Your task to perform on an android device: Search for the most popular coffee table on Crate & Barrel Image 0: 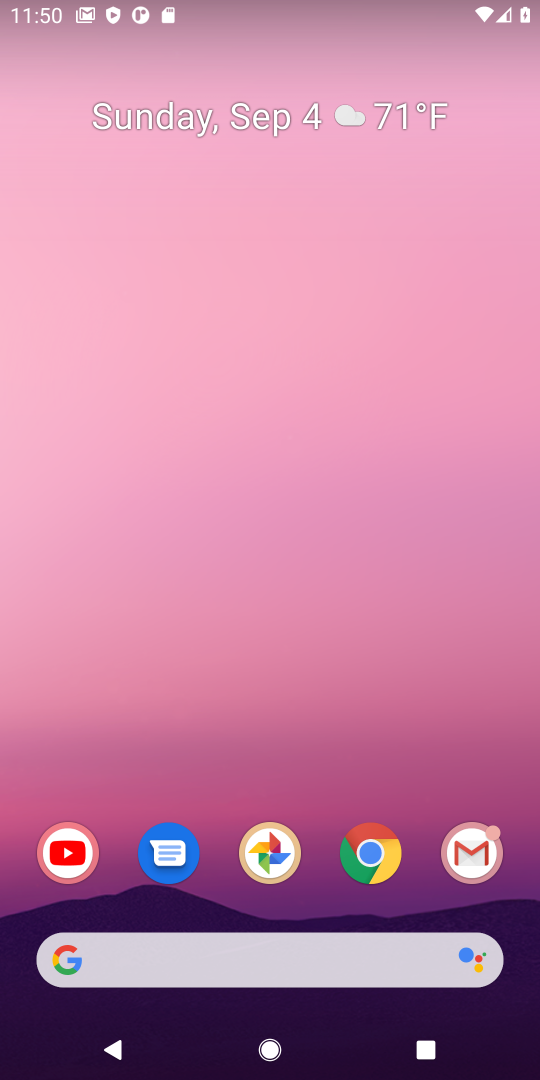
Step 0: click (377, 859)
Your task to perform on an android device: Search for the most popular coffee table on Crate & Barrel Image 1: 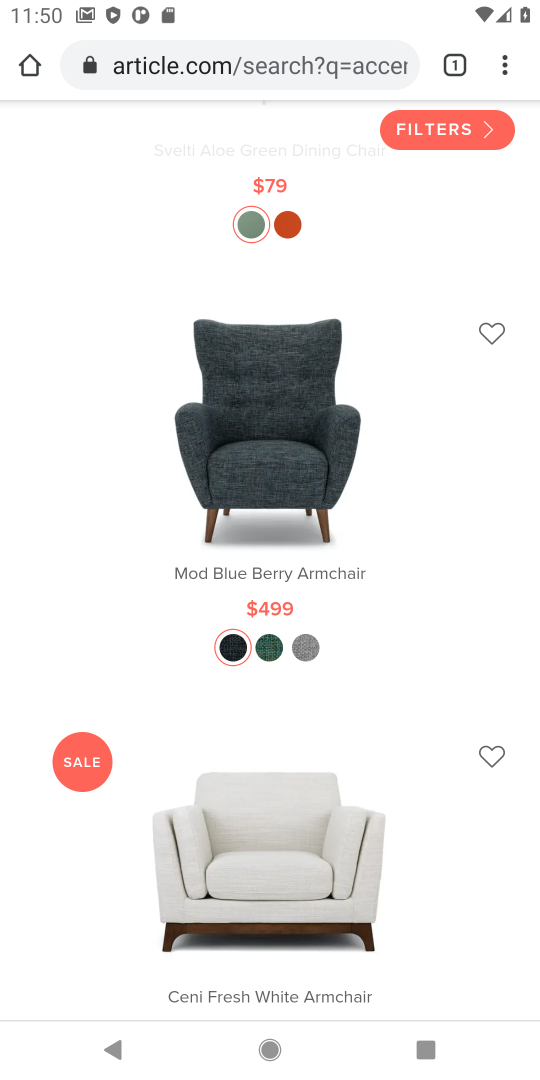
Step 1: click (282, 59)
Your task to perform on an android device: Search for the most popular coffee table on Crate & Barrel Image 2: 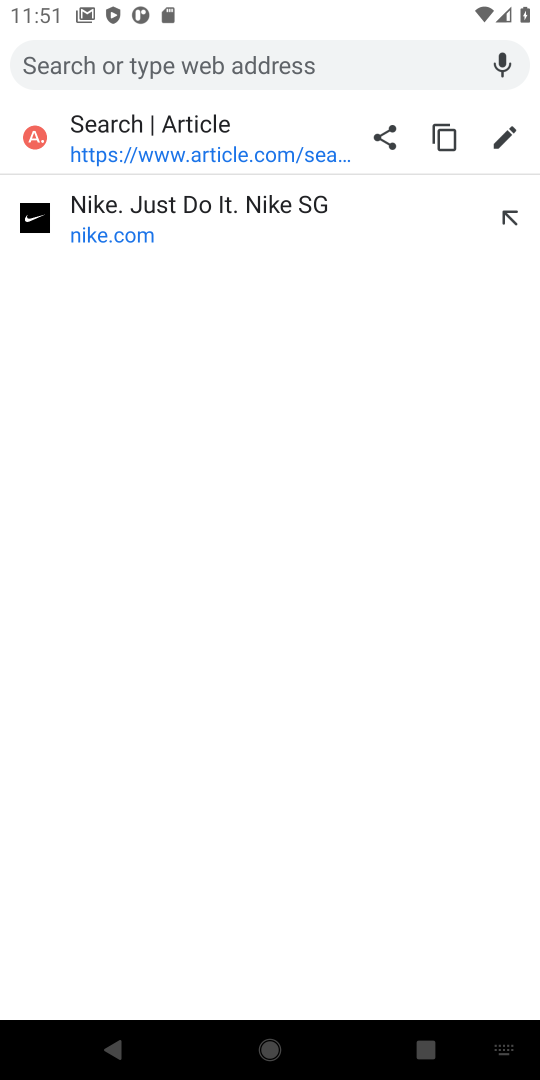
Step 2: type "Crate & Barrel"
Your task to perform on an android device: Search for the most popular coffee table on Crate & Barrel Image 3: 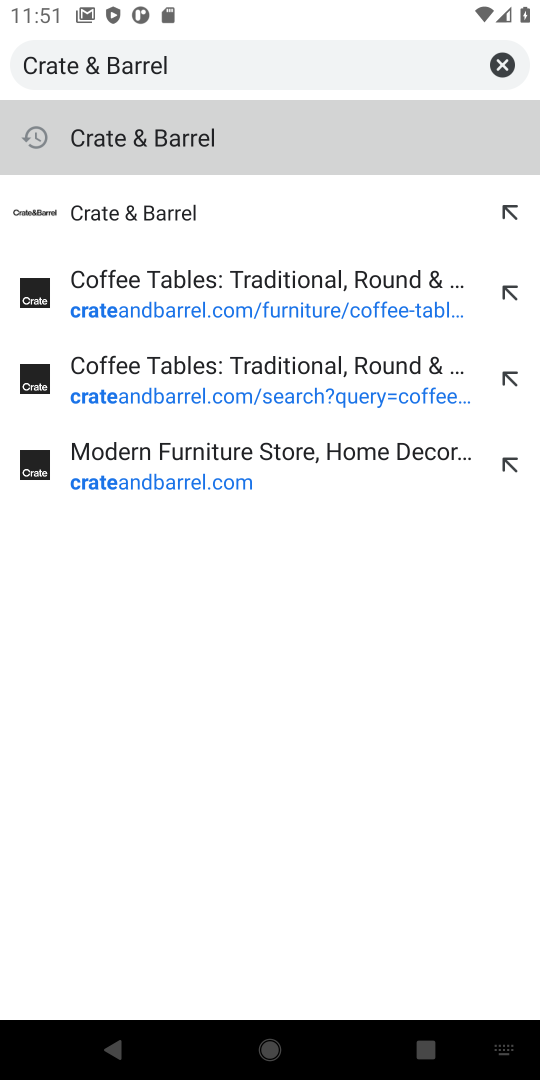
Step 3: press enter
Your task to perform on an android device: Search for the most popular coffee table on Crate & Barrel Image 4: 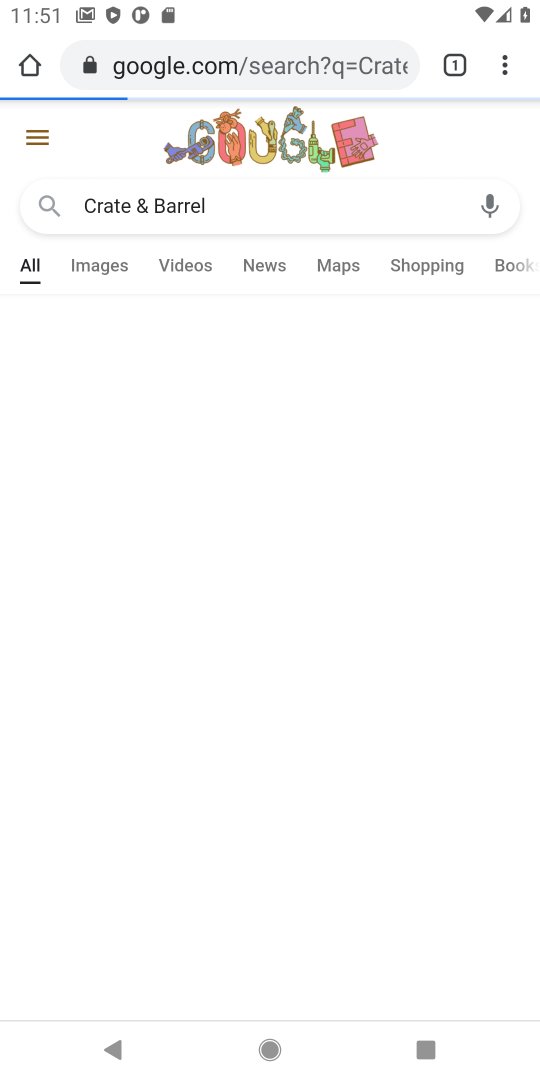
Step 4: click (140, 143)
Your task to perform on an android device: Search for the most popular coffee table on Crate & Barrel Image 5: 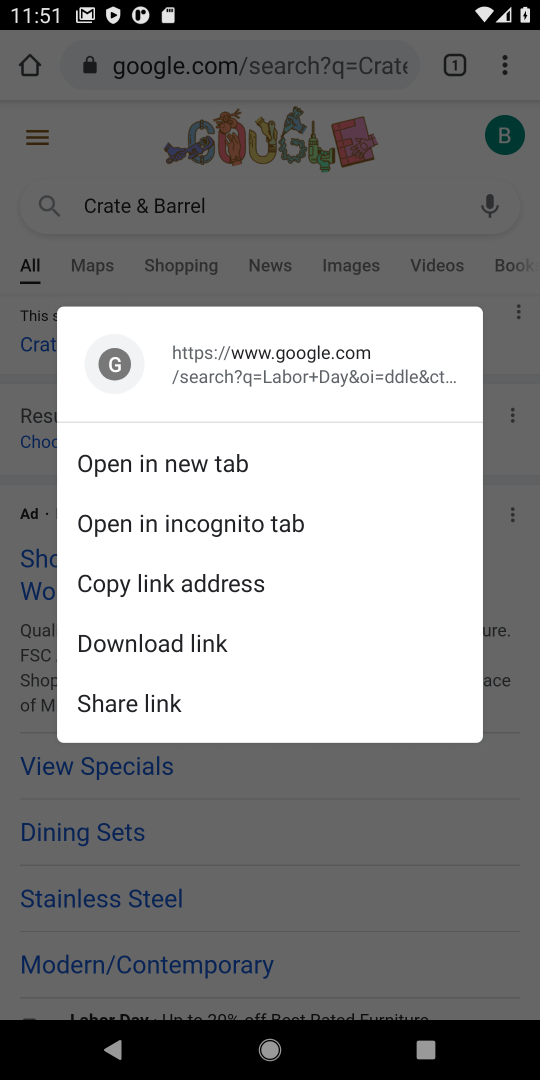
Step 5: click (435, 826)
Your task to perform on an android device: Search for the most popular coffee table on Crate & Barrel Image 6: 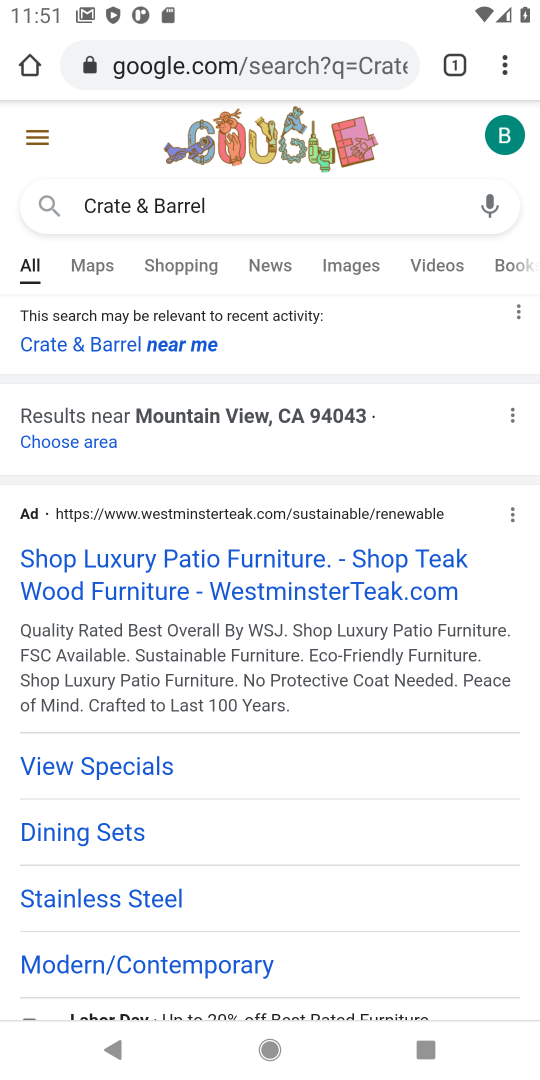
Step 6: drag from (198, 816) to (431, 111)
Your task to perform on an android device: Search for the most popular coffee table on Crate & Barrel Image 7: 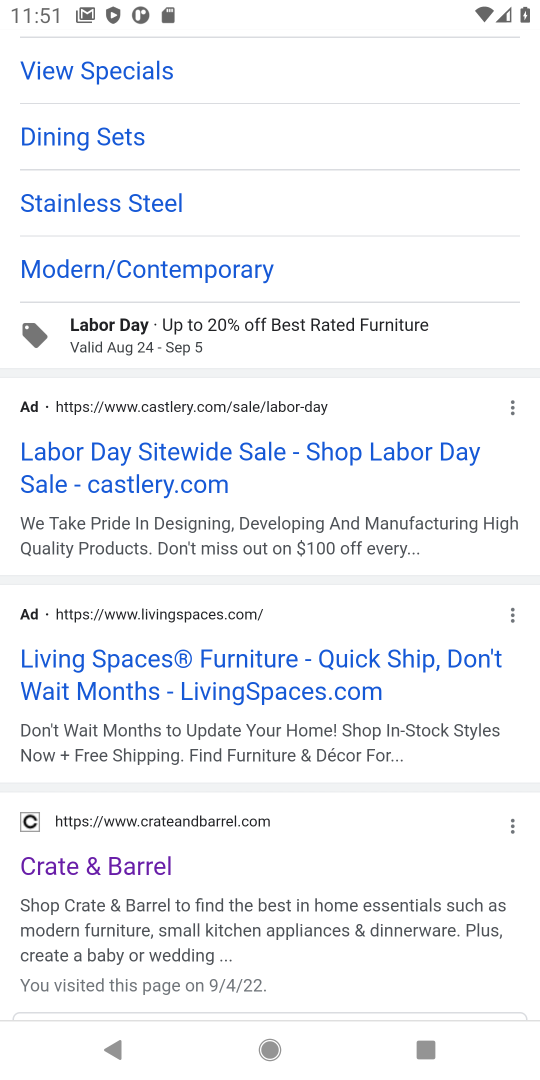
Step 7: click (87, 861)
Your task to perform on an android device: Search for the most popular coffee table on Crate & Barrel Image 8: 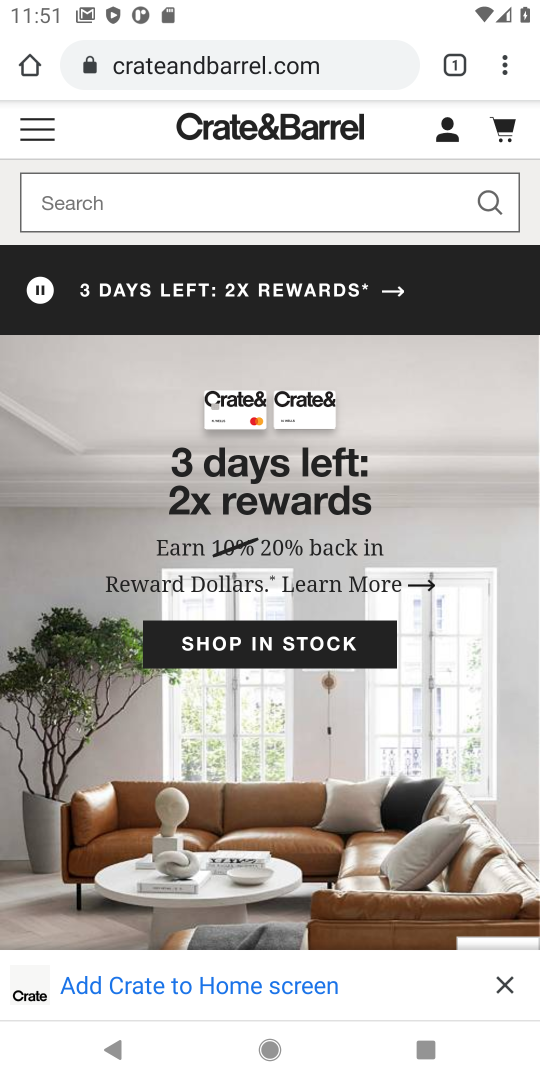
Step 8: drag from (282, 526) to (395, 233)
Your task to perform on an android device: Search for the most popular coffee table on Crate & Barrel Image 9: 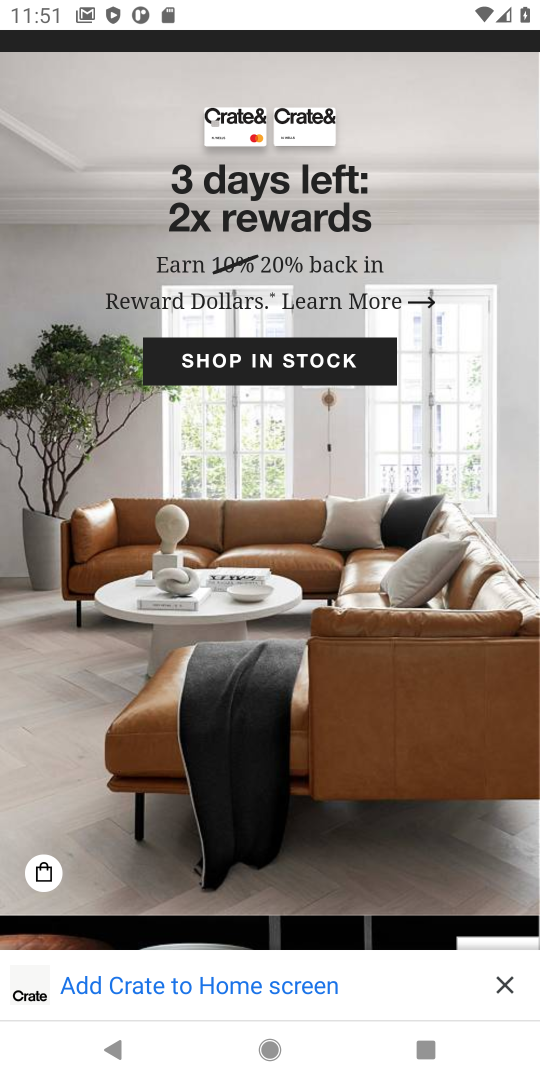
Step 9: drag from (296, 499) to (345, 916)
Your task to perform on an android device: Search for the most popular coffee table on Crate & Barrel Image 10: 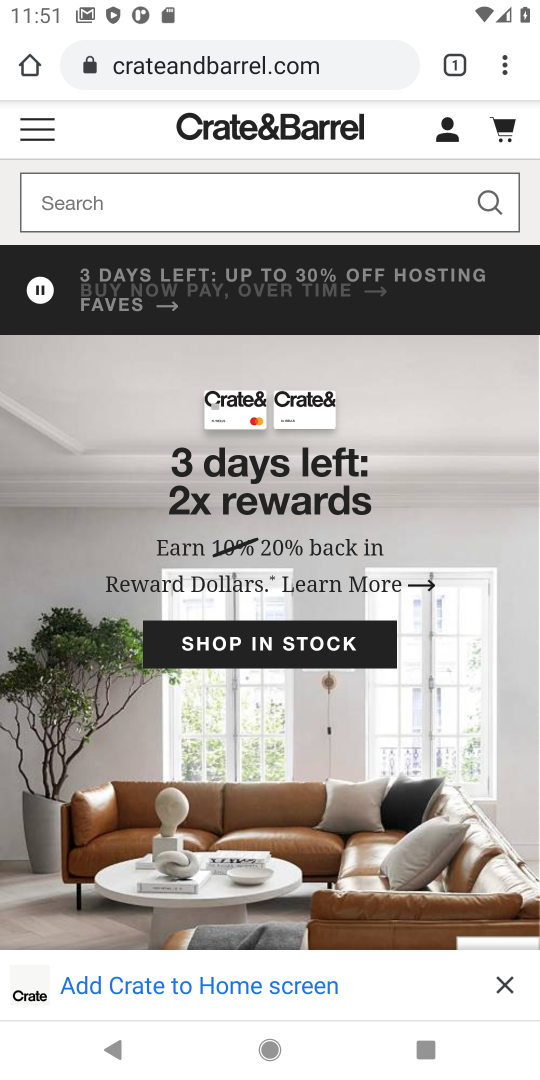
Step 10: click (295, 205)
Your task to perform on an android device: Search for the most popular coffee table on Crate & Barrel Image 11: 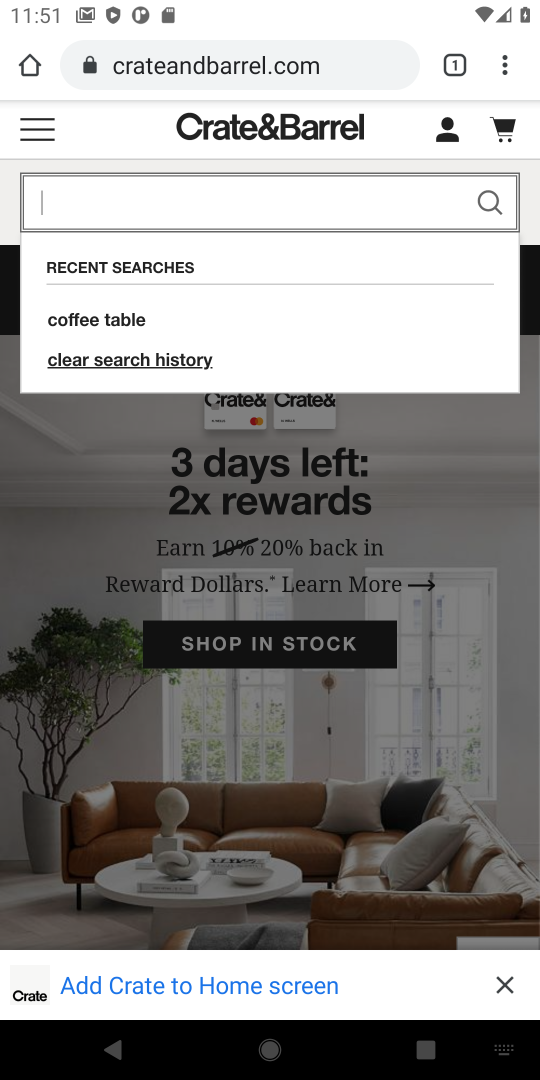
Step 11: press enter
Your task to perform on an android device: Search for the most popular coffee table on Crate & Barrel Image 12: 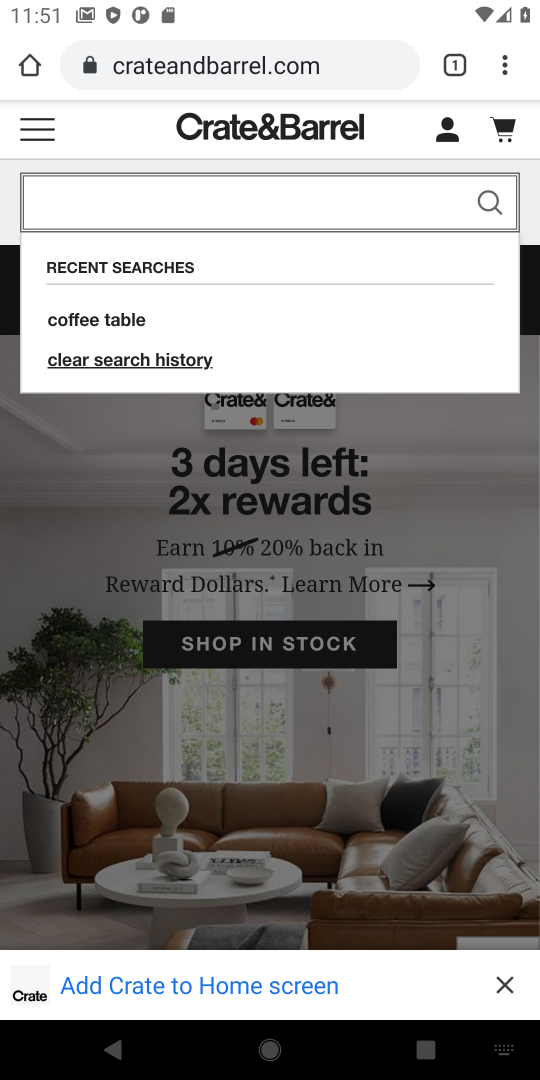
Step 12: type "coffee table"
Your task to perform on an android device: Search for the most popular coffee table on Crate & Barrel Image 13: 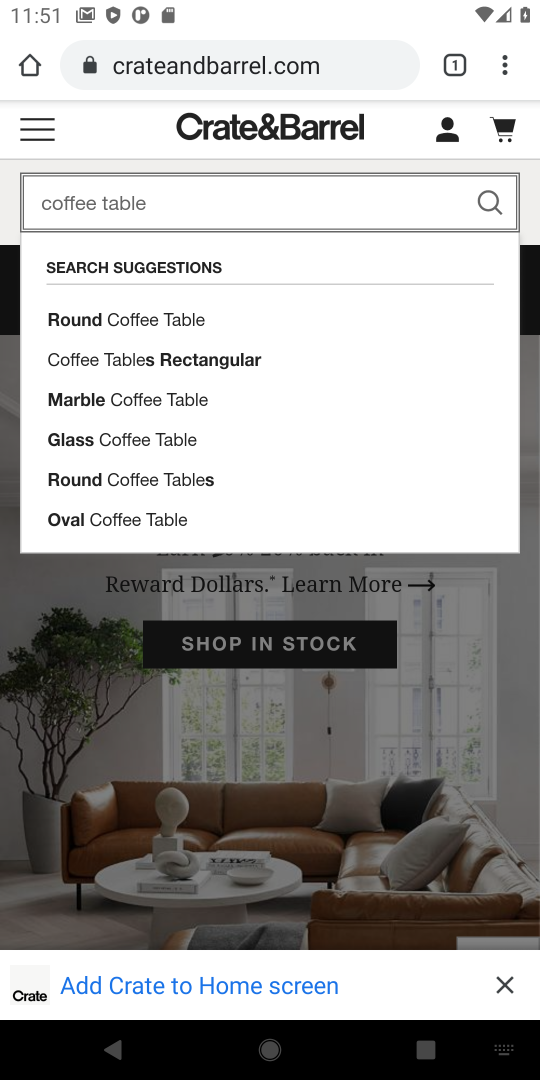
Step 13: click (489, 193)
Your task to perform on an android device: Search for the most popular coffee table on Crate & Barrel Image 14: 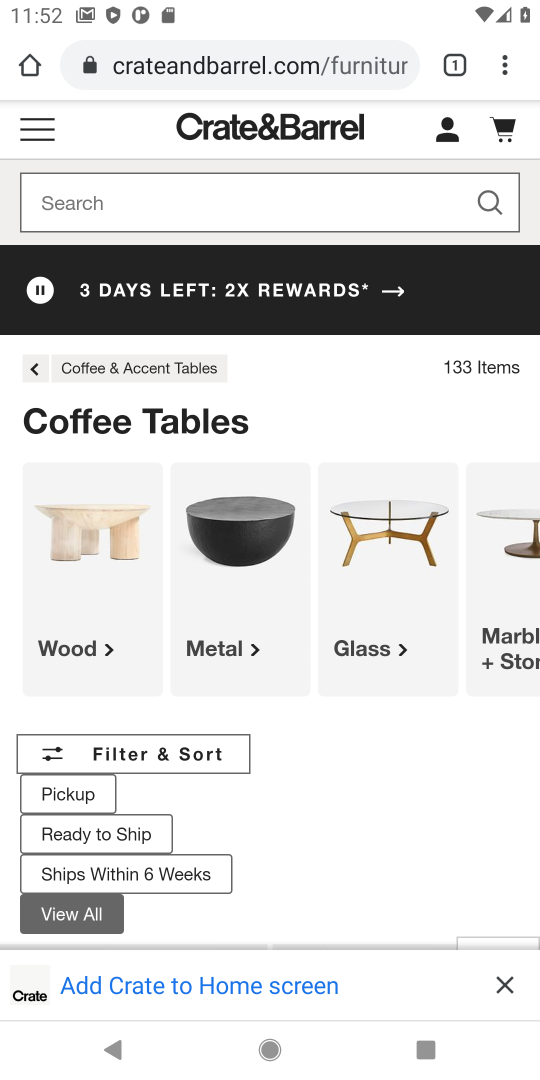
Step 14: task complete